Your task to perform on an android device: star an email in the gmail app Image 0: 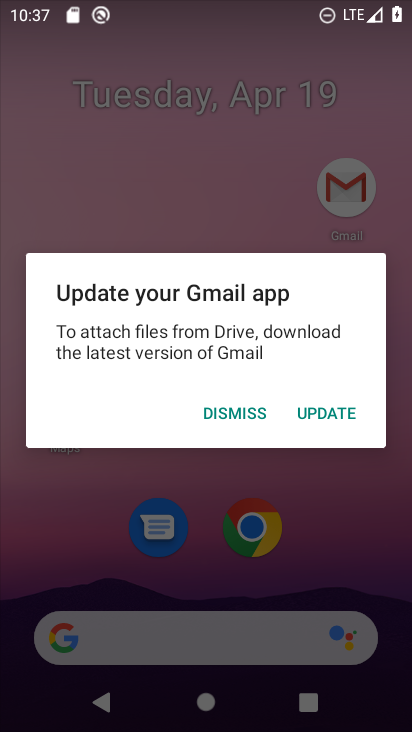
Step 0: press home button
Your task to perform on an android device: star an email in the gmail app Image 1: 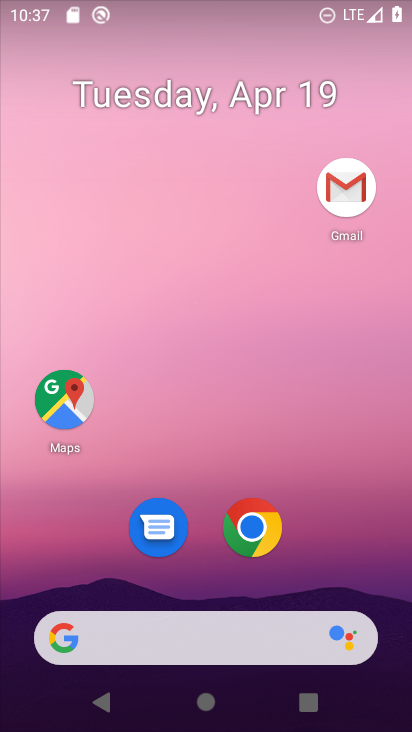
Step 1: click (330, 184)
Your task to perform on an android device: star an email in the gmail app Image 2: 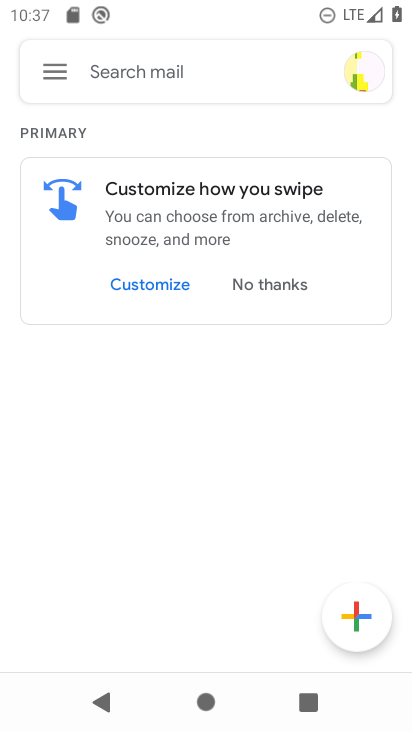
Step 2: click (54, 61)
Your task to perform on an android device: star an email in the gmail app Image 3: 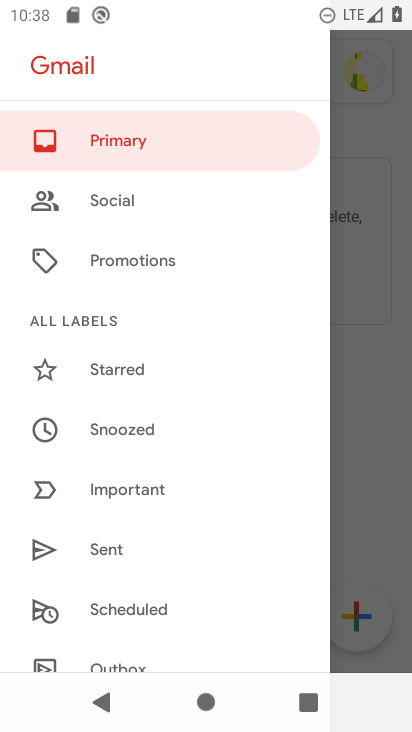
Step 3: drag from (204, 530) to (237, 364)
Your task to perform on an android device: star an email in the gmail app Image 4: 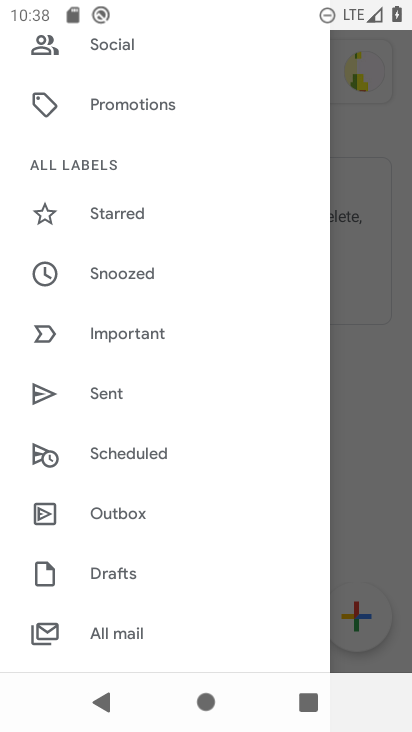
Step 4: drag from (175, 571) to (208, 355)
Your task to perform on an android device: star an email in the gmail app Image 5: 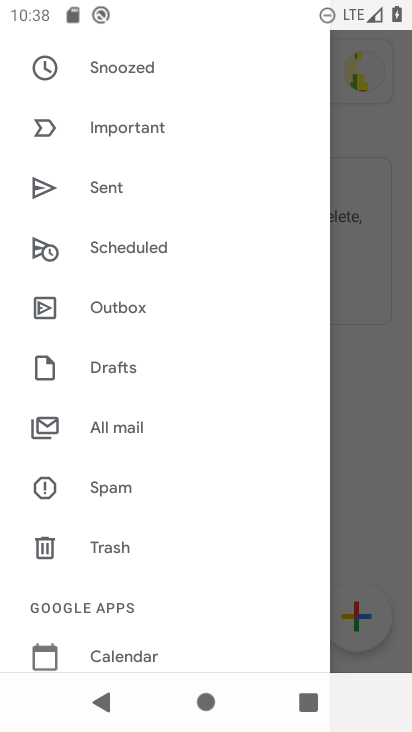
Step 5: click (124, 418)
Your task to perform on an android device: star an email in the gmail app Image 6: 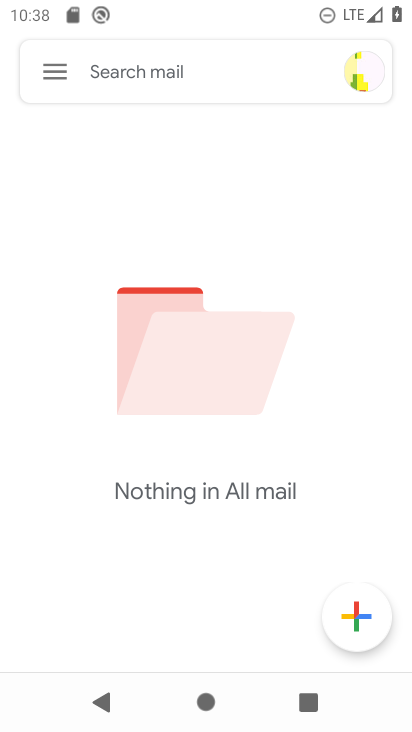
Step 6: task complete